Your task to perform on an android device: star an email in the gmail app Image 0: 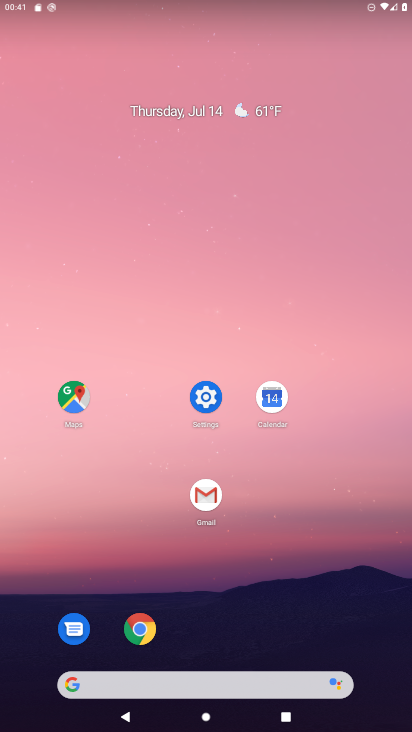
Step 0: click (212, 497)
Your task to perform on an android device: star an email in the gmail app Image 1: 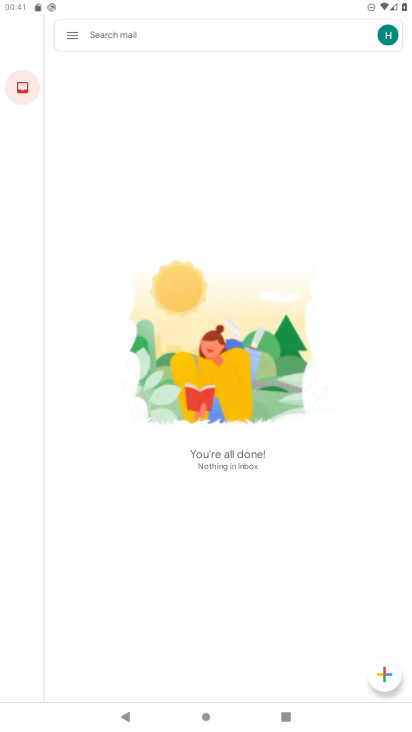
Step 1: task complete